Your task to perform on an android device: see sites visited before in the chrome app Image 0: 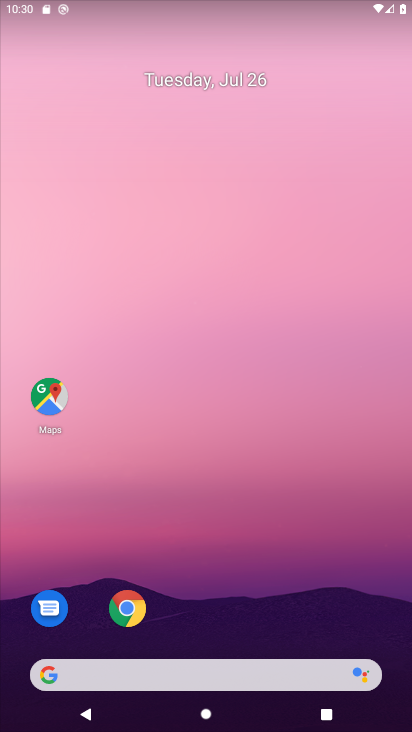
Step 0: drag from (299, 570) to (280, 32)
Your task to perform on an android device: see sites visited before in the chrome app Image 1: 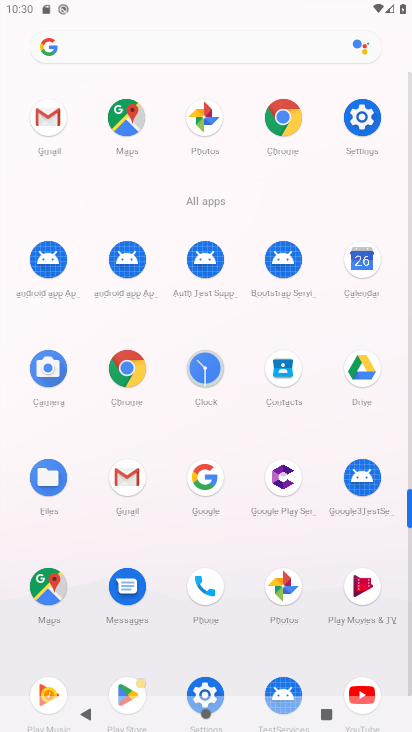
Step 1: click (118, 370)
Your task to perform on an android device: see sites visited before in the chrome app Image 2: 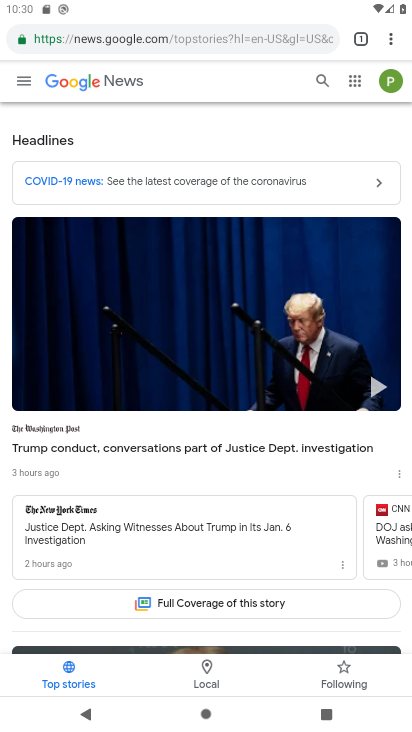
Step 2: drag from (388, 35) to (261, 454)
Your task to perform on an android device: see sites visited before in the chrome app Image 3: 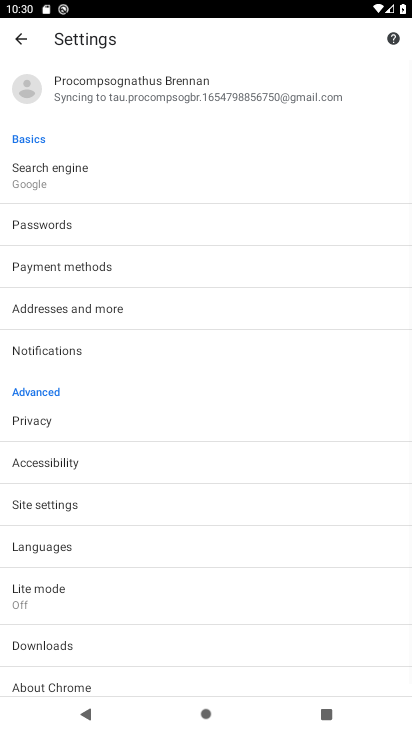
Step 3: click (22, 36)
Your task to perform on an android device: see sites visited before in the chrome app Image 4: 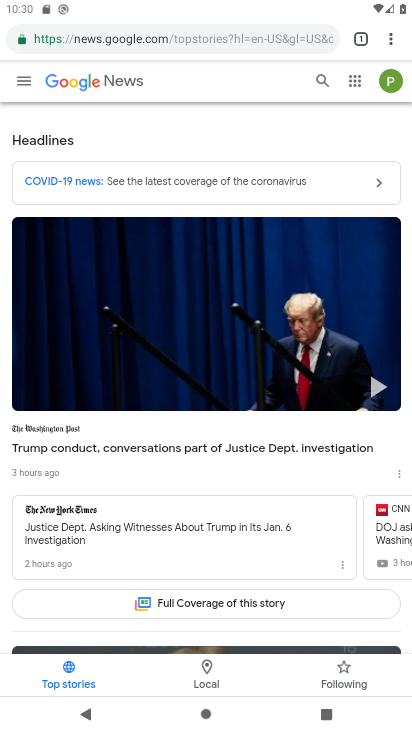
Step 4: task complete